Your task to perform on an android device: clear history in the chrome app Image 0: 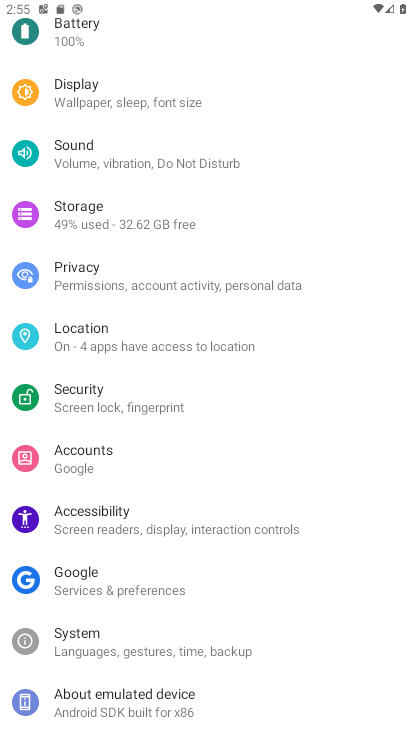
Step 0: drag from (193, 667) to (197, 432)
Your task to perform on an android device: clear history in the chrome app Image 1: 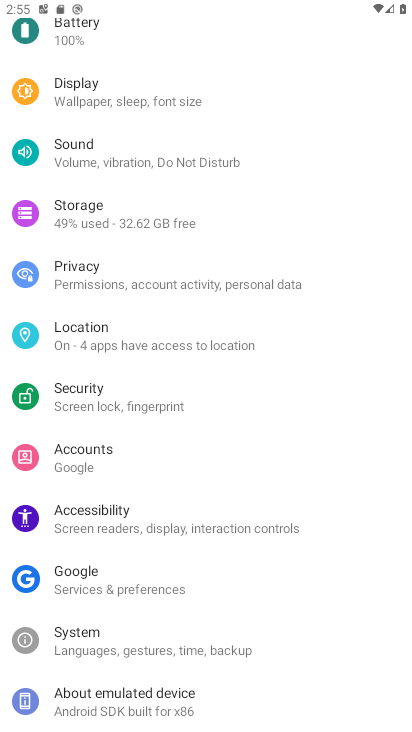
Step 1: press home button
Your task to perform on an android device: clear history in the chrome app Image 2: 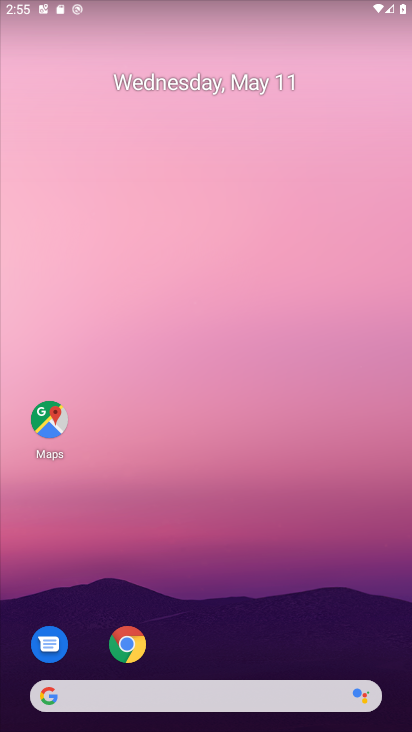
Step 2: drag from (186, 685) to (150, 65)
Your task to perform on an android device: clear history in the chrome app Image 3: 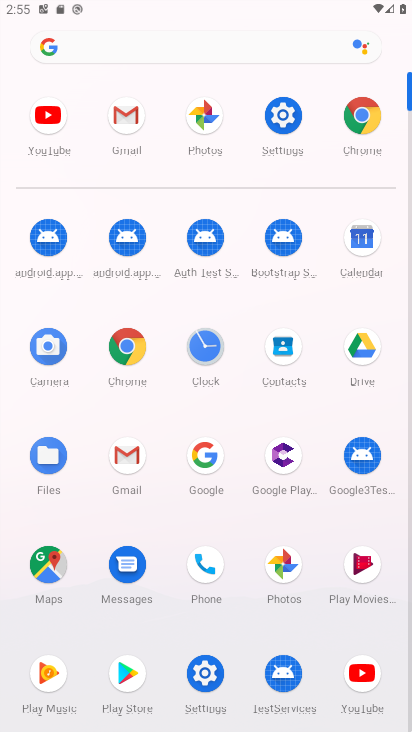
Step 3: click (130, 353)
Your task to perform on an android device: clear history in the chrome app Image 4: 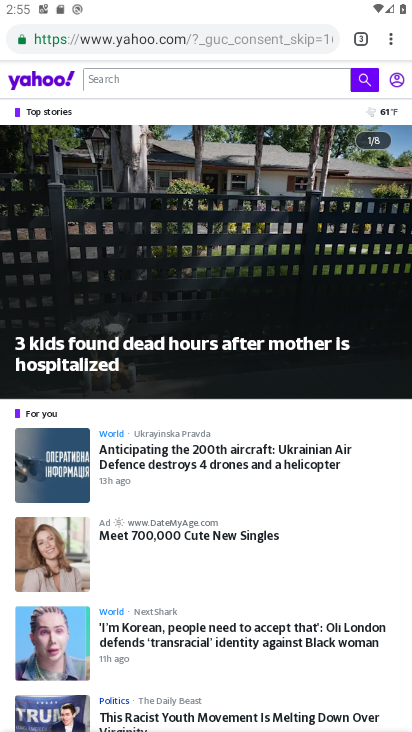
Step 4: click (387, 29)
Your task to perform on an android device: clear history in the chrome app Image 5: 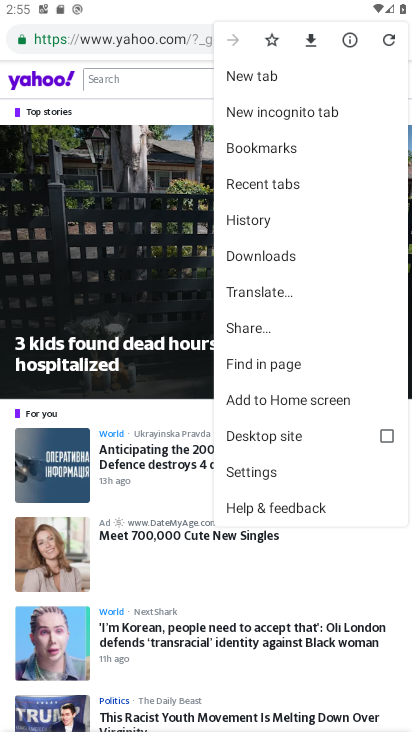
Step 5: click (256, 226)
Your task to perform on an android device: clear history in the chrome app Image 6: 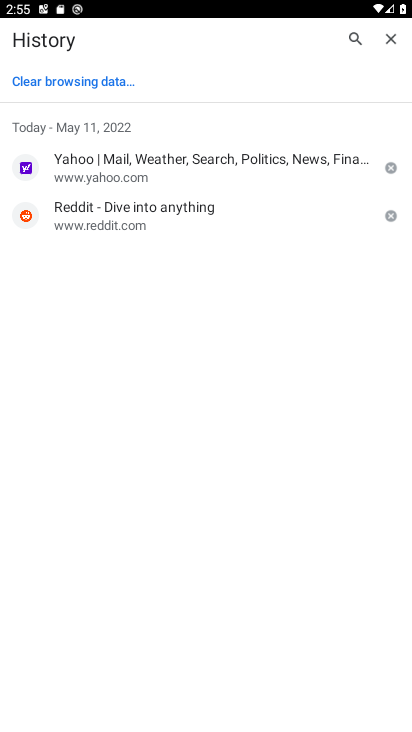
Step 6: click (74, 93)
Your task to perform on an android device: clear history in the chrome app Image 7: 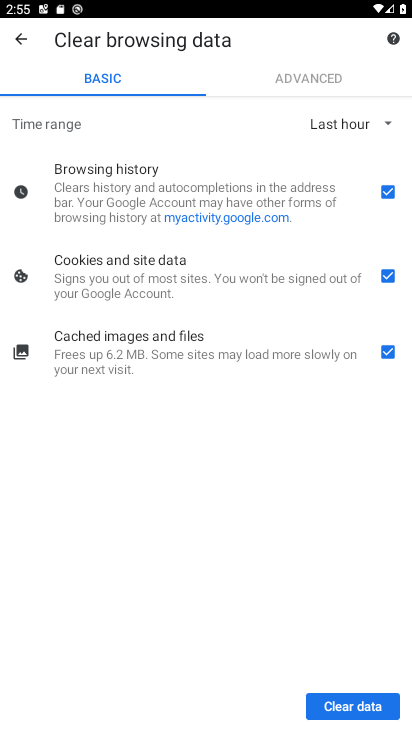
Step 7: click (344, 711)
Your task to perform on an android device: clear history in the chrome app Image 8: 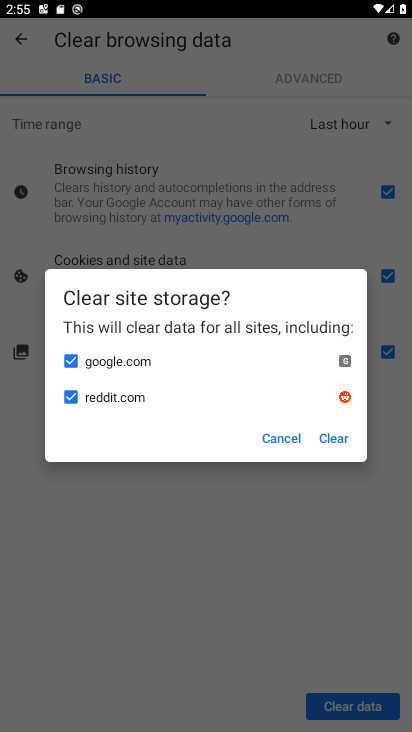
Step 8: click (326, 431)
Your task to perform on an android device: clear history in the chrome app Image 9: 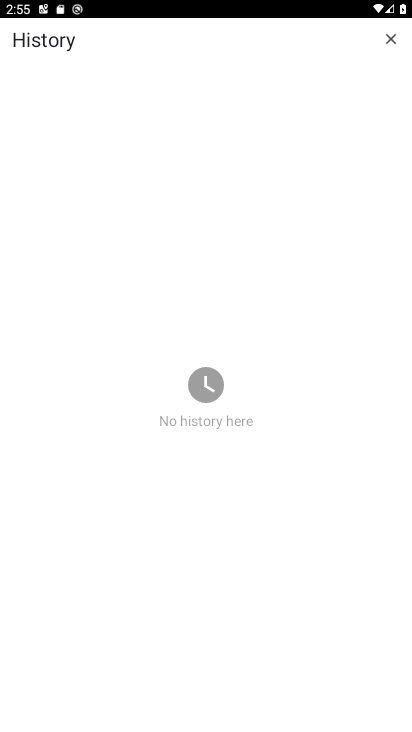
Step 9: task complete